Your task to perform on an android device: Search for vegetarian restaurants on Maps Image 0: 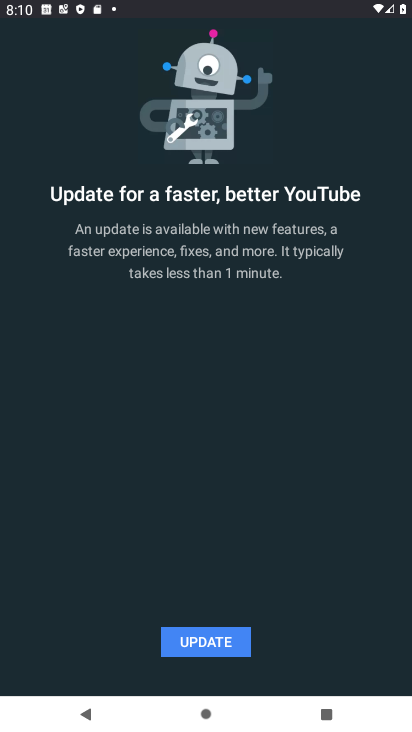
Step 0: press home button
Your task to perform on an android device: Search for vegetarian restaurants on Maps Image 1: 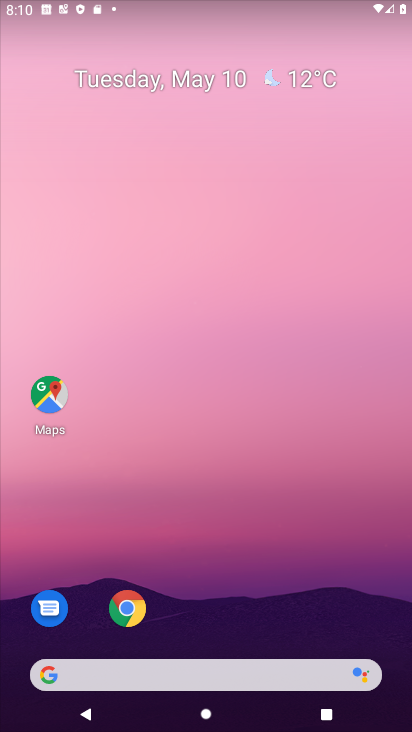
Step 1: click (399, 635)
Your task to perform on an android device: Search for vegetarian restaurants on Maps Image 2: 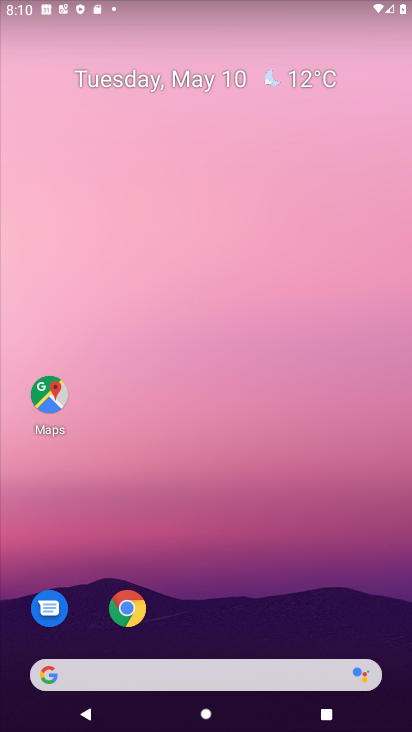
Step 2: drag from (208, 637) to (262, 259)
Your task to perform on an android device: Search for vegetarian restaurants on Maps Image 3: 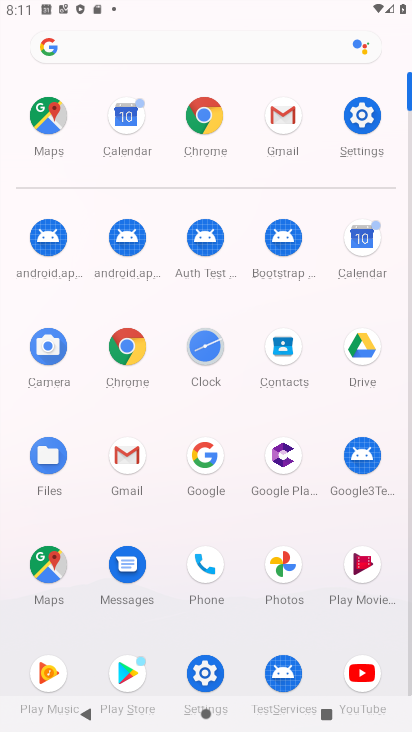
Step 3: click (47, 566)
Your task to perform on an android device: Search for vegetarian restaurants on Maps Image 4: 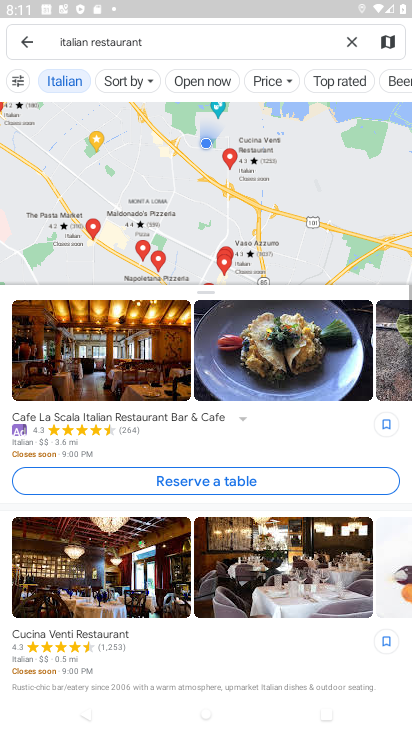
Step 4: click (349, 42)
Your task to perform on an android device: Search for vegetarian restaurants on Maps Image 5: 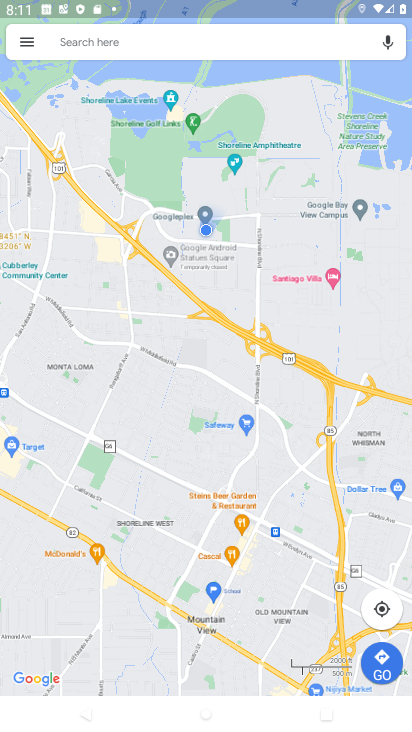
Step 5: click (285, 40)
Your task to perform on an android device: Search for vegetarian restaurants on Maps Image 6: 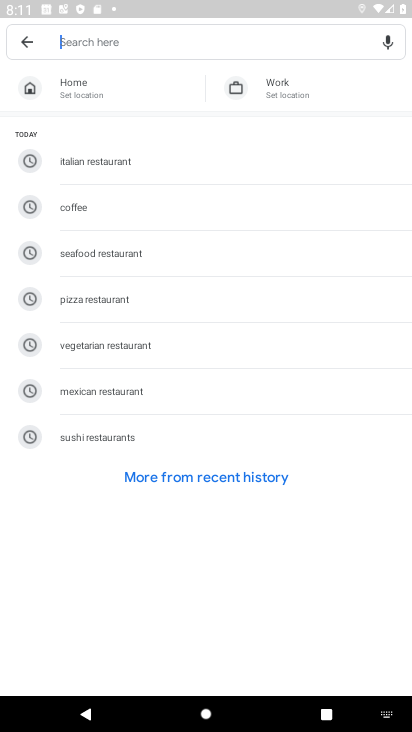
Step 6: click (114, 343)
Your task to perform on an android device: Search for vegetarian restaurants on Maps Image 7: 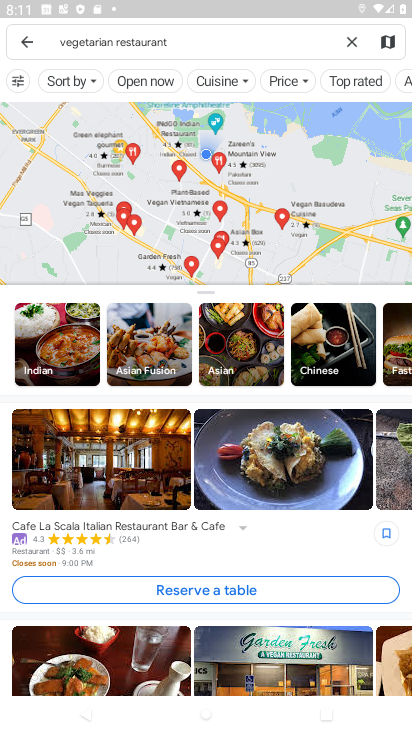
Step 7: task complete